Your task to perform on an android device: Search for sushi restaurants on Maps Image 0: 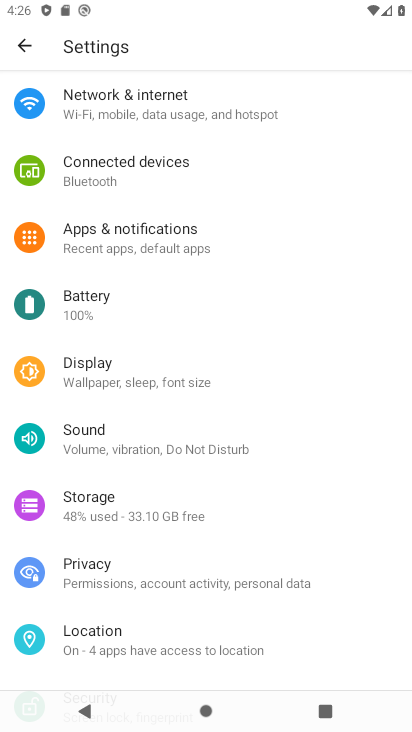
Step 0: press home button
Your task to perform on an android device: Search for sushi restaurants on Maps Image 1: 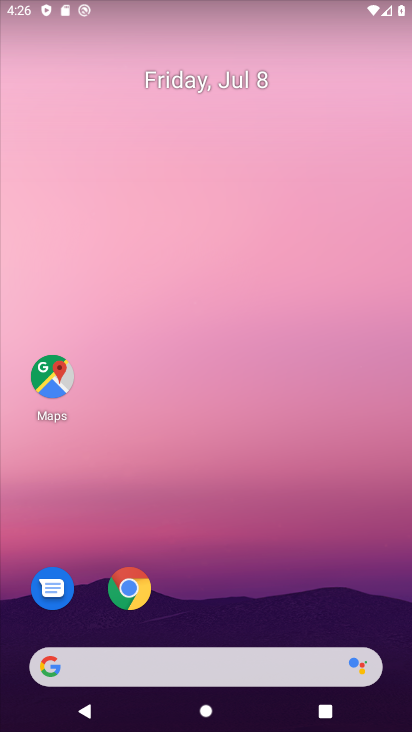
Step 1: click (207, 637)
Your task to perform on an android device: Search for sushi restaurants on Maps Image 2: 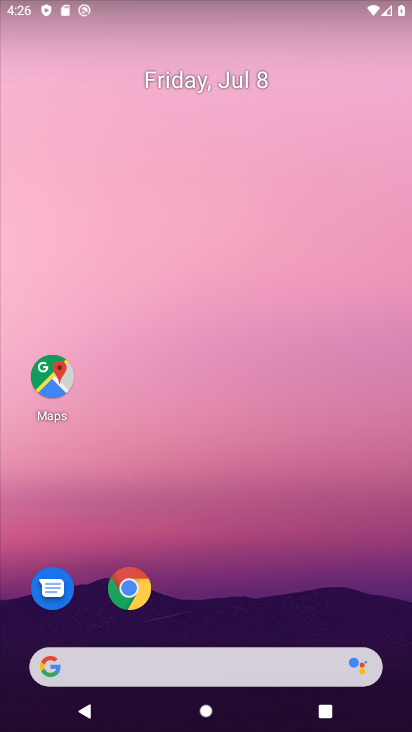
Step 2: click (60, 383)
Your task to perform on an android device: Search for sushi restaurants on Maps Image 3: 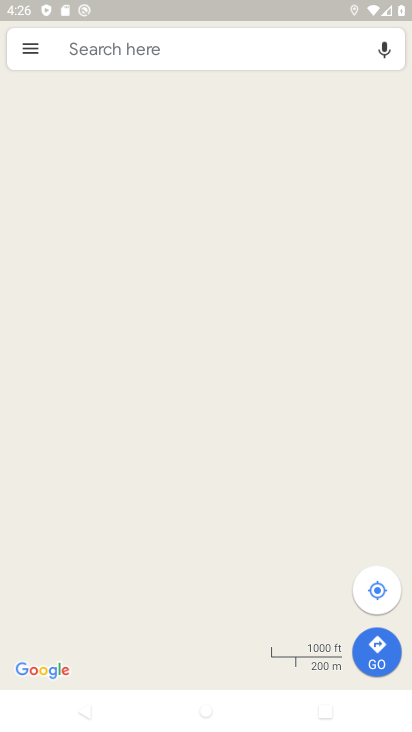
Step 3: click (225, 50)
Your task to perform on an android device: Search for sushi restaurants on Maps Image 4: 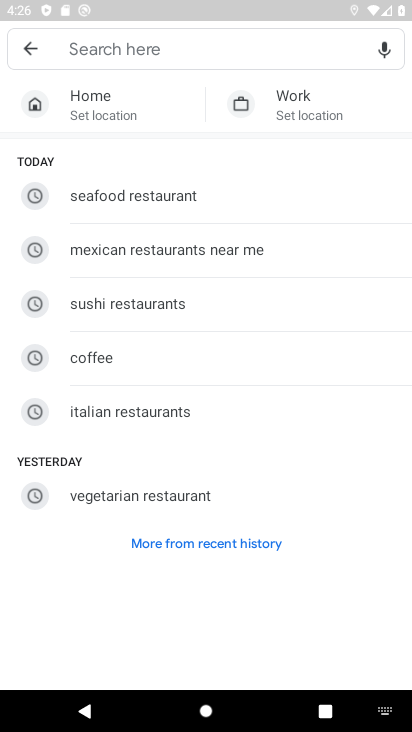
Step 4: type "sushi restaurants"
Your task to perform on an android device: Search for sushi restaurants on Maps Image 5: 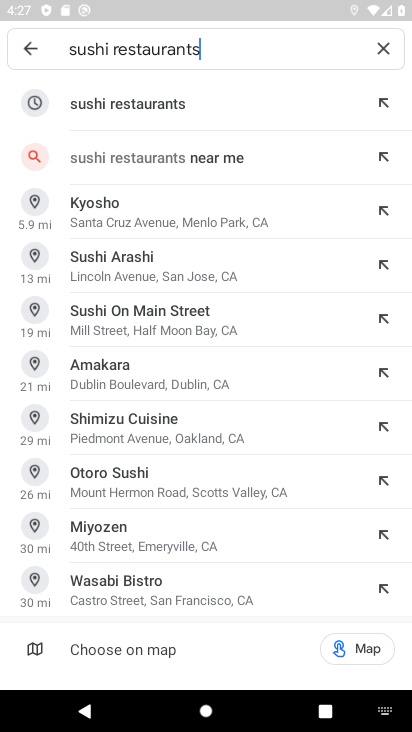
Step 5: click (227, 106)
Your task to perform on an android device: Search for sushi restaurants on Maps Image 6: 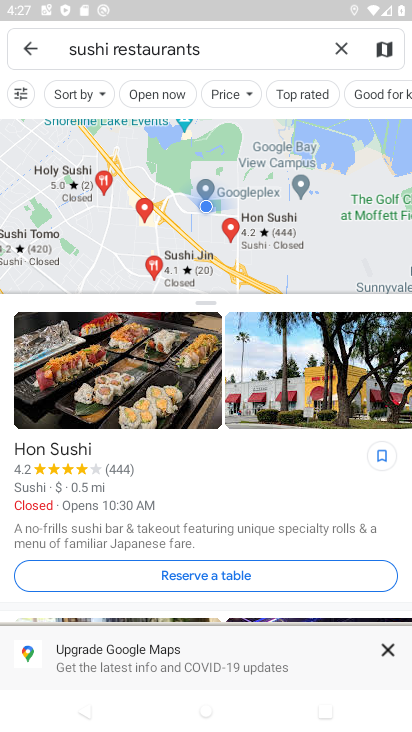
Step 6: task complete